Your task to perform on an android device: toggle javascript in the chrome app Image 0: 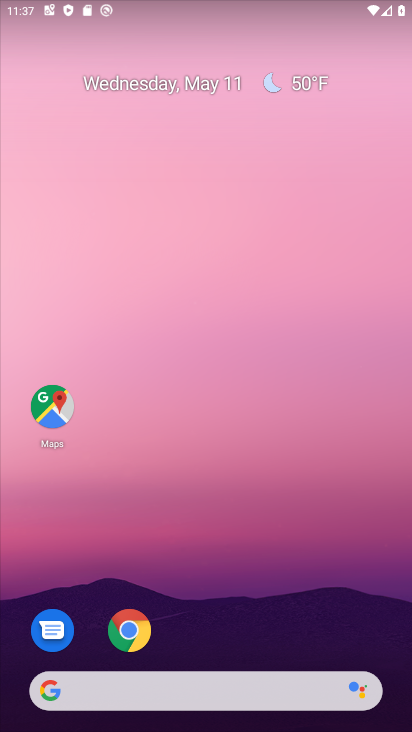
Step 0: click (130, 626)
Your task to perform on an android device: toggle javascript in the chrome app Image 1: 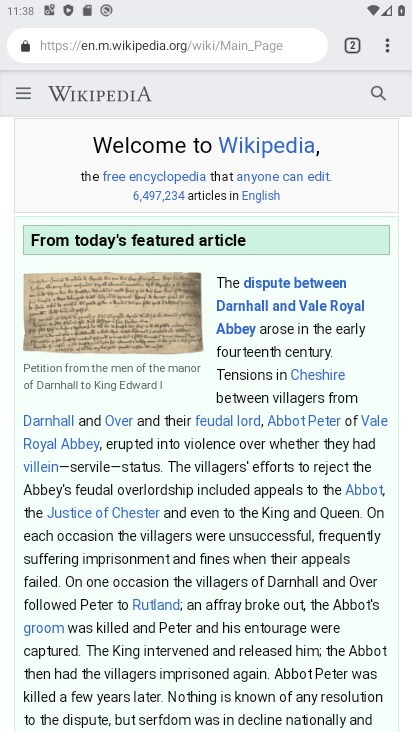
Step 1: click (387, 55)
Your task to perform on an android device: toggle javascript in the chrome app Image 2: 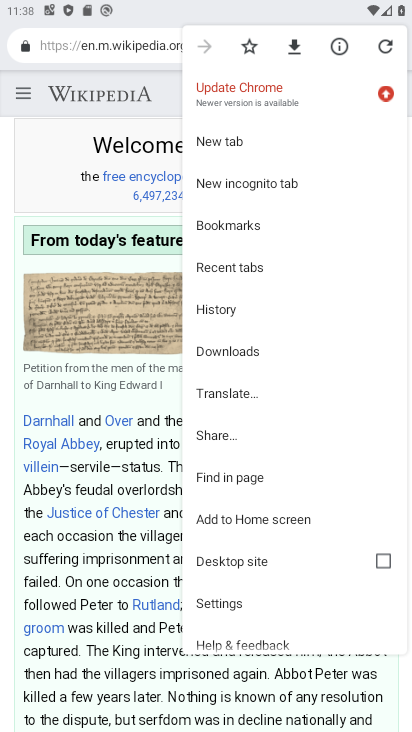
Step 2: click (217, 601)
Your task to perform on an android device: toggle javascript in the chrome app Image 3: 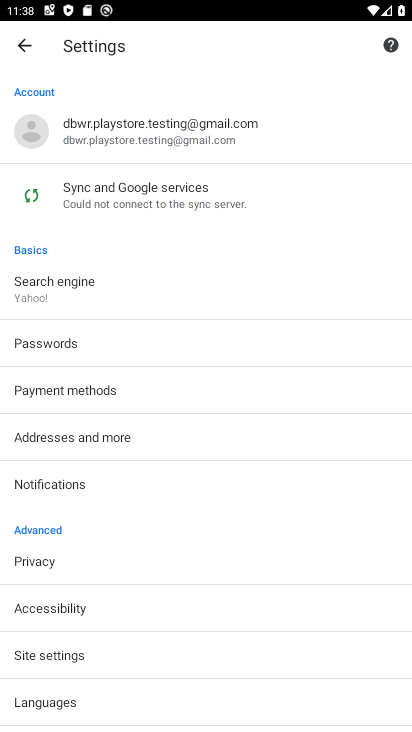
Step 3: click (53, 654)
Your task to perform on an android device: toggle javascript in the chrome app Image 4: 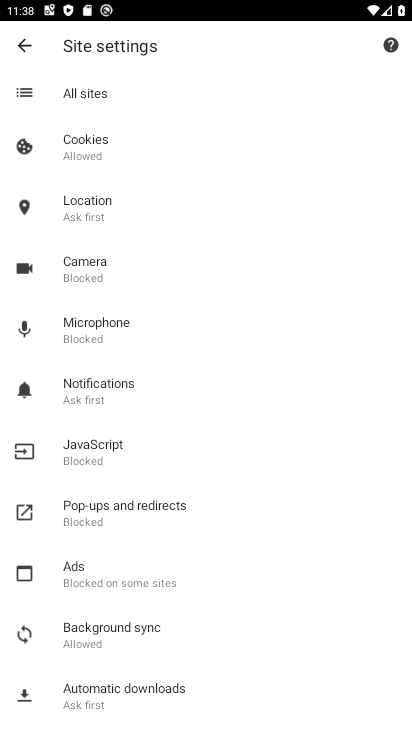
Step 4: drag from (90, 656) to (66, 455)
Your task to perform on an android device: toggle javascript in the chrome app Image 5: 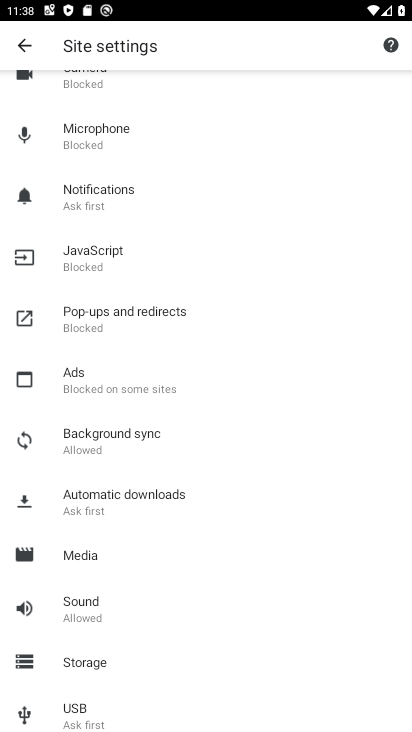
Step 5: click (96, 251)
Your task to perform on an android device: toggle javascript in the chrome app Image 6: 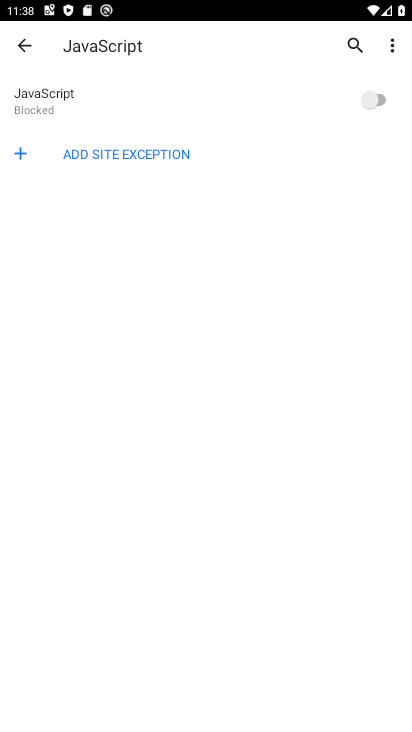
Step 6: click (383, 96)
Your task to perform on an android device: toggle javascript in the chrome app Image 7: 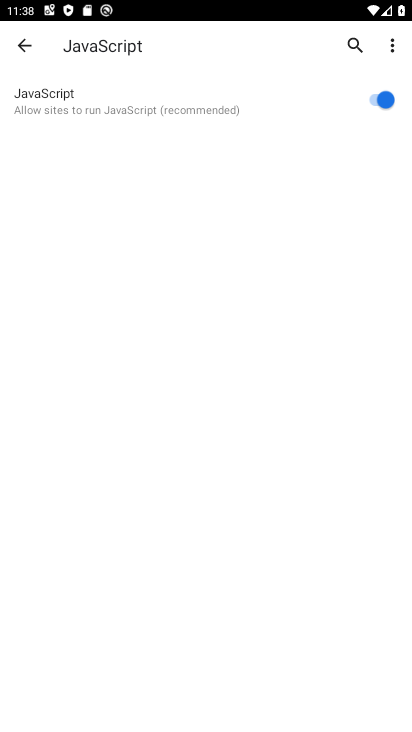
Step 7: task complete